Your task to perform on an android device: Open my contact list Image 0: 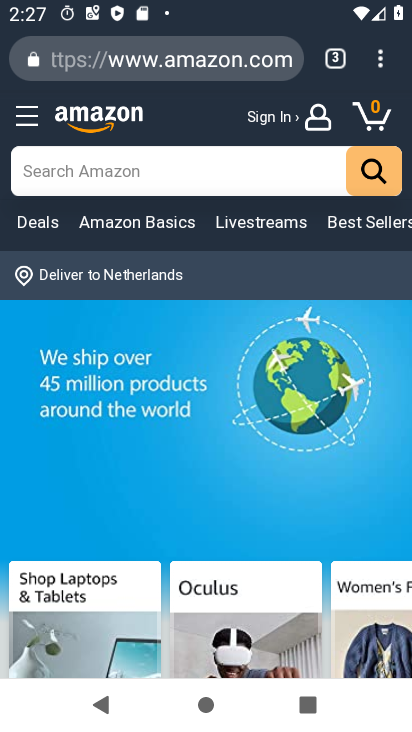
Step 0: press home button
Your task to perform on an android device: Open my contact list Image 1: 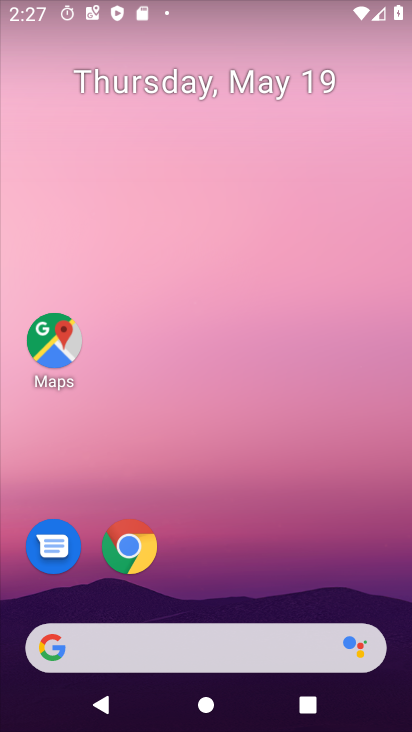
Step 1: drag from (122, 585) to (259, 136)
Your task to perform on an android device: Open my contact list Image 2: 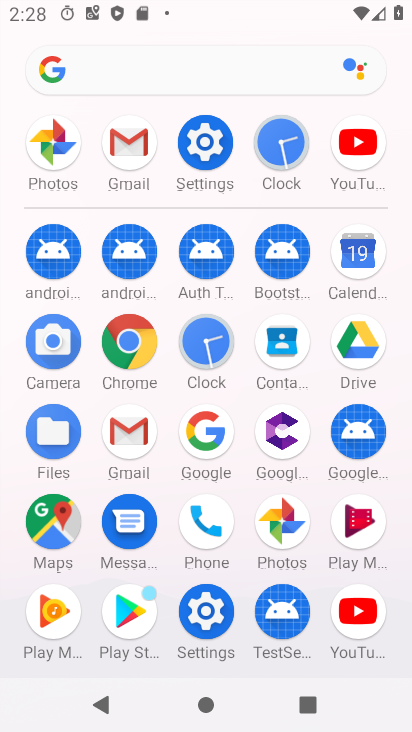
Step 2: click (266, 355)
Your task to perform on an android device: Open my contact list Image 3: 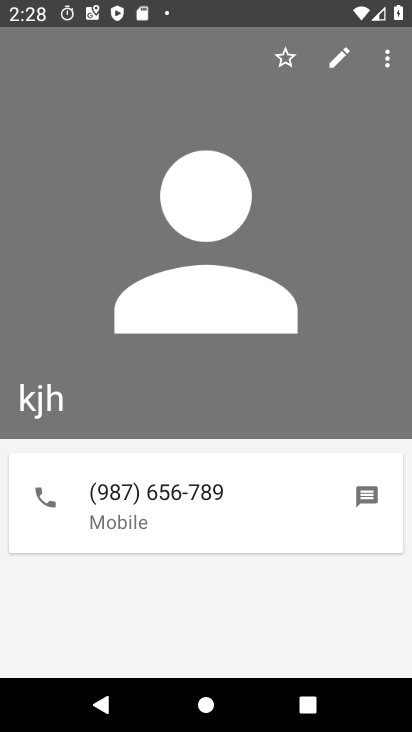
Step 3: task complete